Your task to perform on an android device: Go to location settings Image 0: 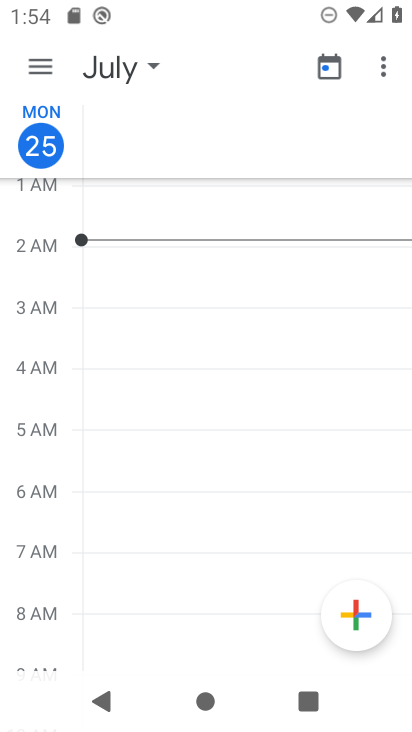
Step 0: press home button
Your task to perform on an android device: Go to location settings Image 1: 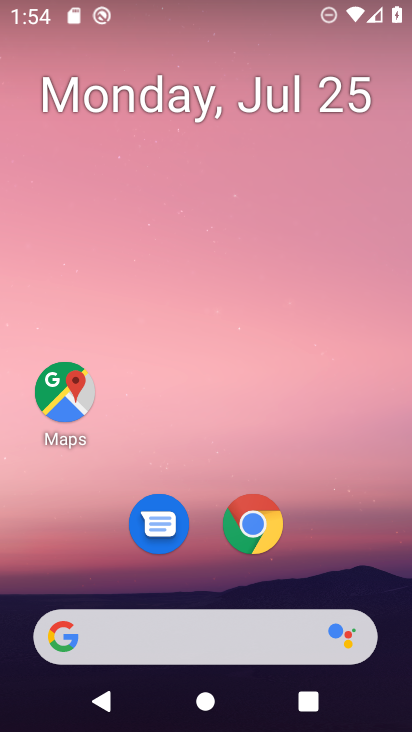
Step 1: drag from (201, 642) to (272, 128)
Your task to perform on an android device: Go to location settings Image 2: 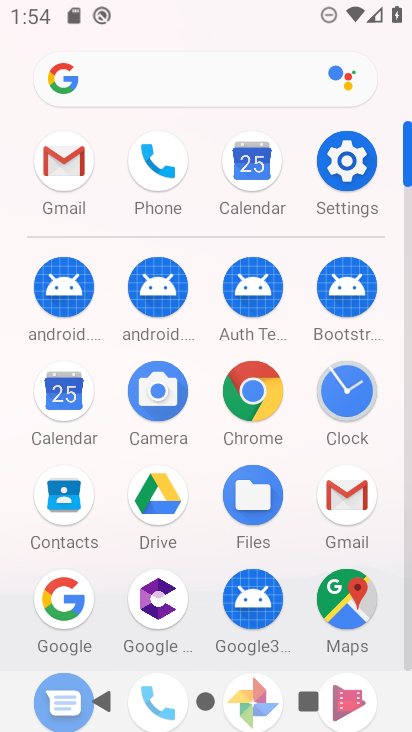
Step 2: click (350, 173)
Your task to perform on an android device: Go to location settings Image 3: 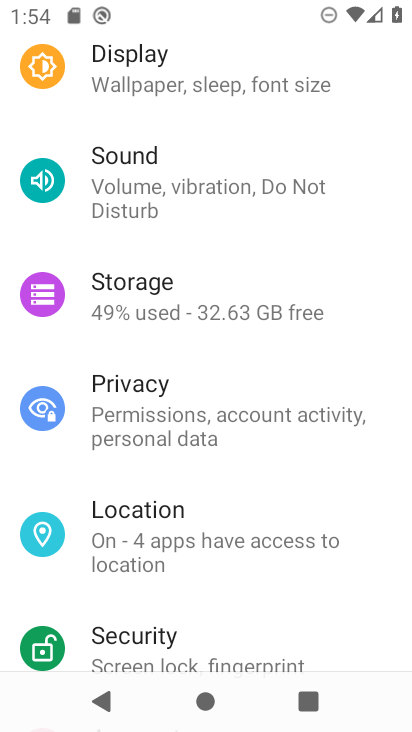
Step 3: click (163, 532)
Your task to perform on an android device: Go to location settings Image 4: 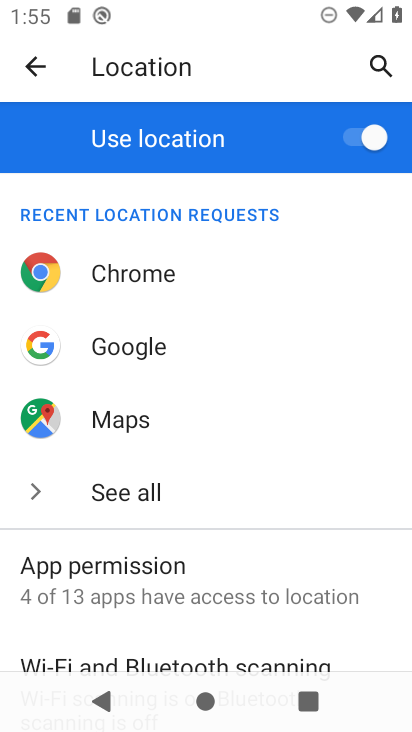
Step 4: task complete